Your task to perform on an android device: turn off location history Image 0: 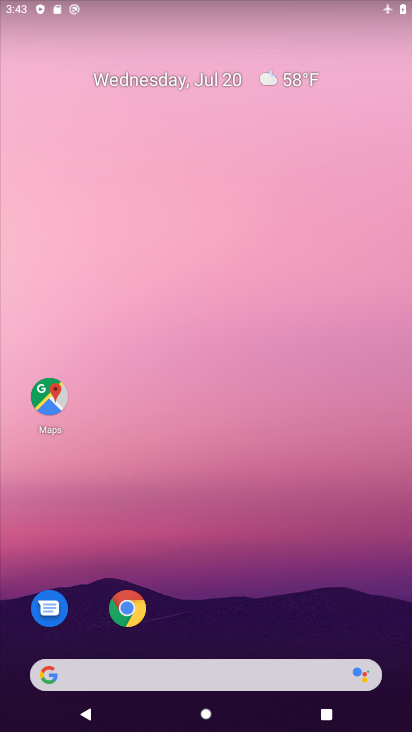
Step 0: drag from (236, 483) to (224, 41)
Your task to perform on an android device: turn off location history Image 1: 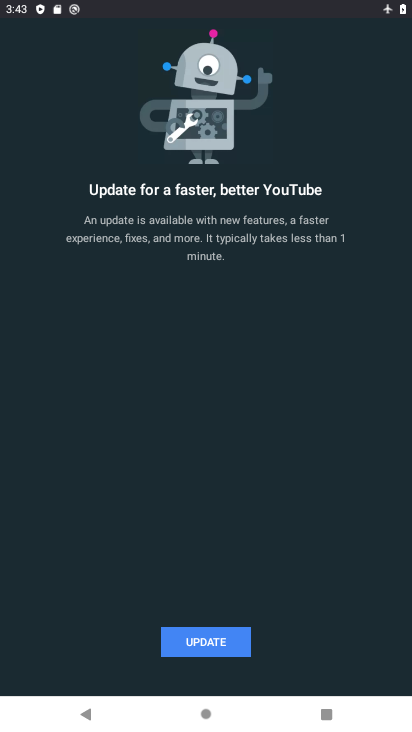
Step 1: press home button
Your task to perform on an android device: turn off location history Image 2: 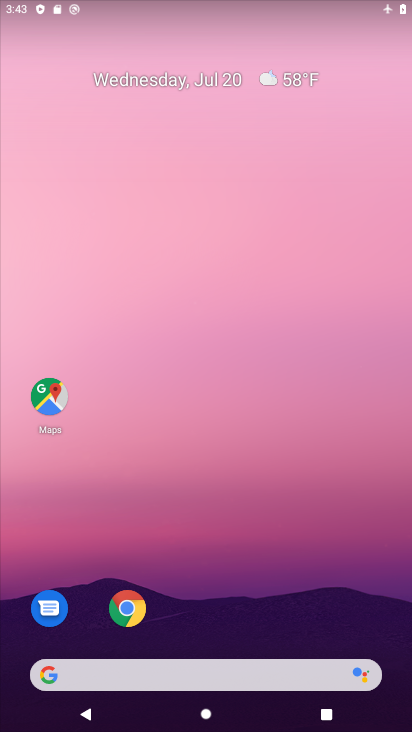
Step 2: drag from (208, 580) to (221, 50)
Your task to perform on an android device: turn off location history Image 3: 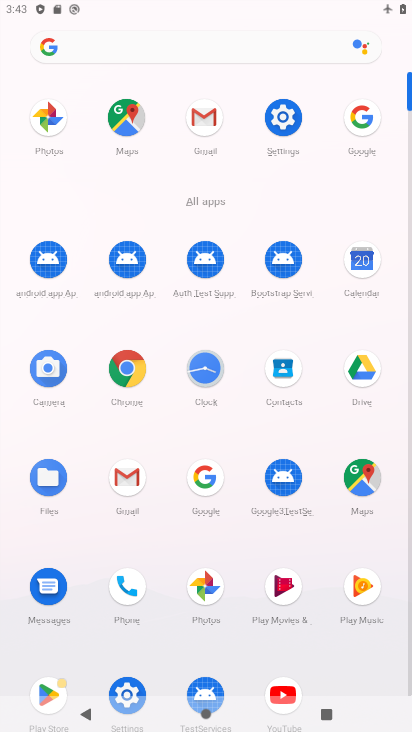
Step 3: click (207, 371)
Your task to perform on an android device: turn off location history Image 4: 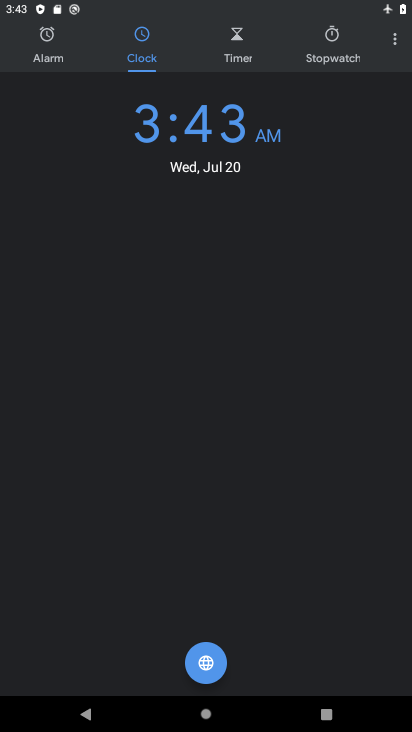
Step 4: click (64, 48)
Your task to perform on an android device: turn off location history Image 5: 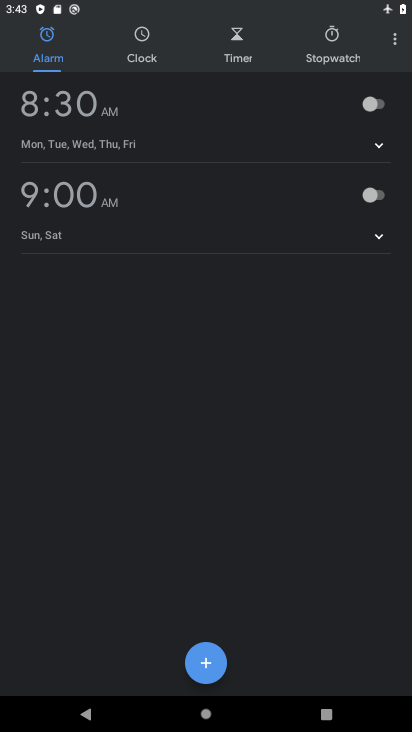
Step 5: click (392, 99)
Your task to perform on an android device: turn off location history Image 6: 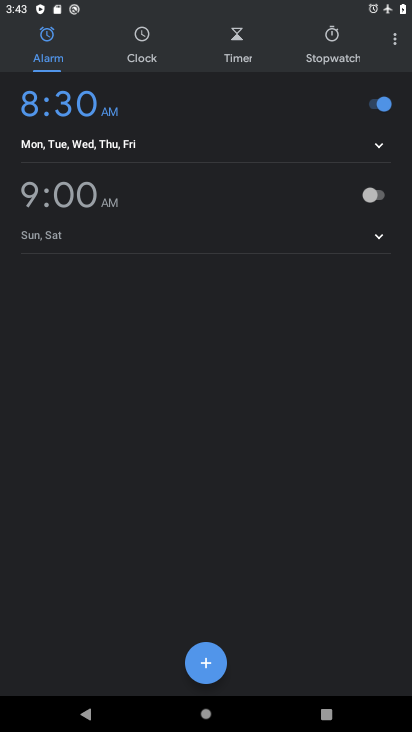
Step 6: task complete